Your task to perform on an android device: Open maps Image 0: 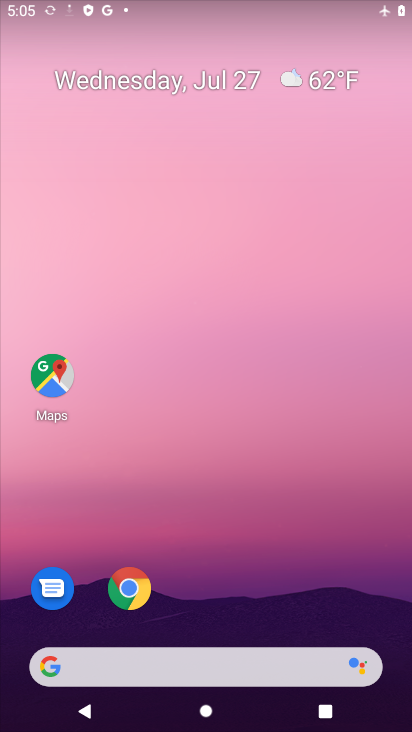
Step 0: click (52, 371)
Your task to perform on an android device: Open maps Image 1: 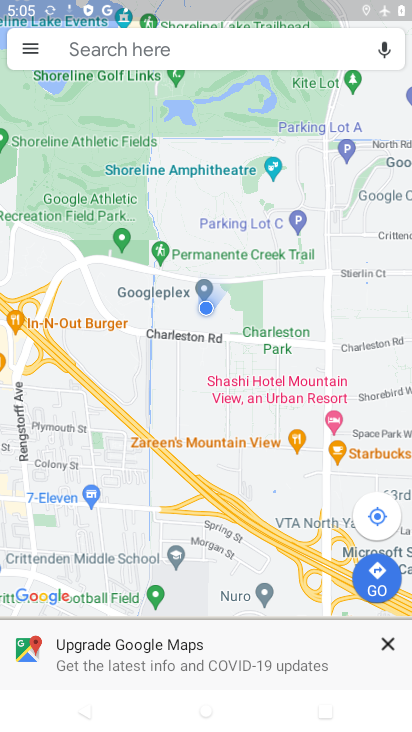
Step 1: task complete